Your task to perform on an android device: Search for sushi restaurants on Maps Image 0: 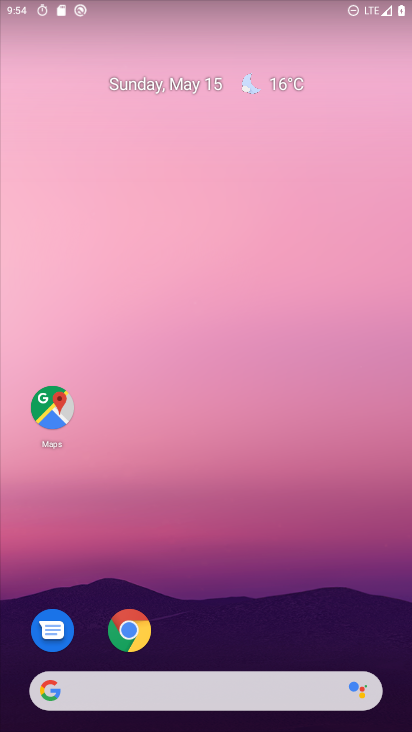
Step 0: drag from (232, 638) to (323, 33)
Your task to perform on an android device: Search for sushi restaurants on Maps Image 1: 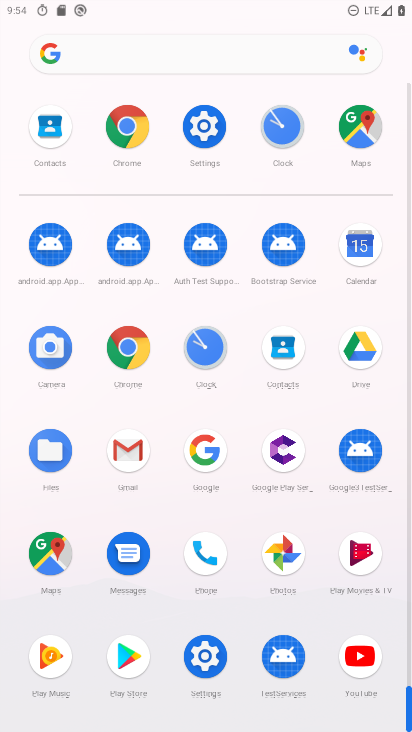
Step 1: click (35, 540)
Your task to perform on an android device: Search for sushi restaurants on Maps Image 2: 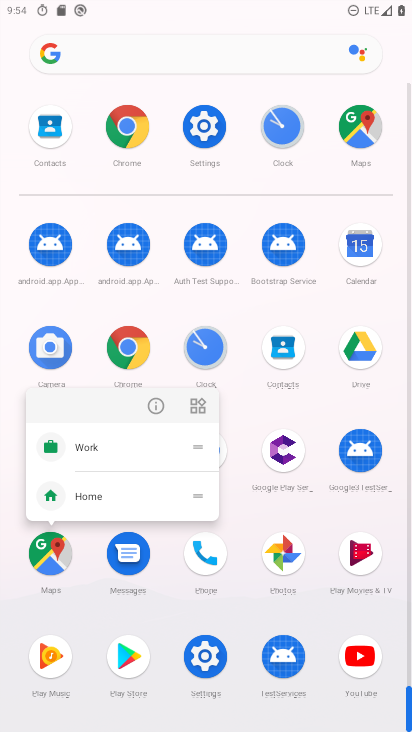
Step 2: click (157, 409)
Your task to perform on an android device: Search for sushi restaurants on Maps Image 3: 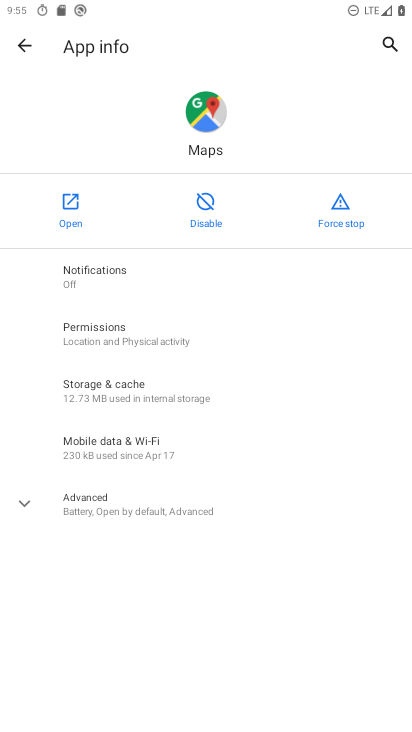
Step 3: click (84, 213)
Your task to perform on an android device: Search for sushi restaurants on Maps Image 4: 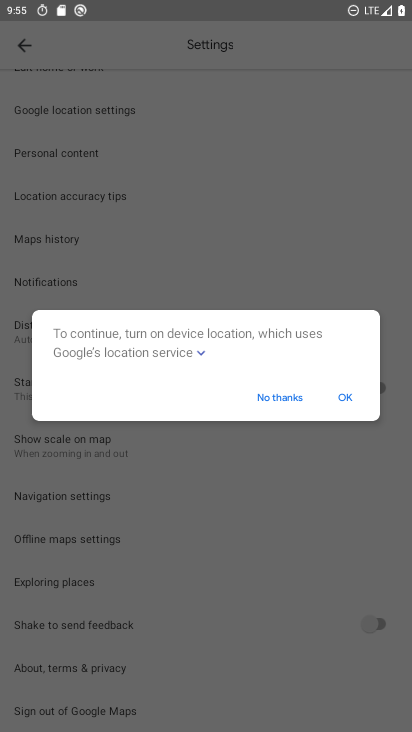
Step 4: click (342, 397)
Your task to perform on an android device: Search for sushi restaurants on Maps Image 5: 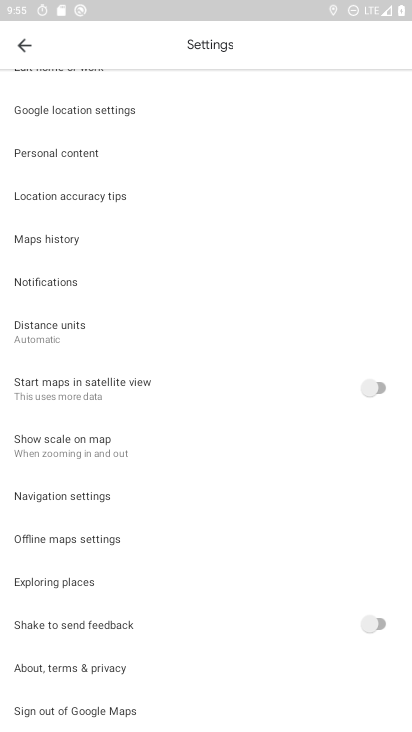
Step 5: drag from (165, 169) to (241, 694)
Your task to perform on an android device: Search for sushi restaurants on Maps Image 6: 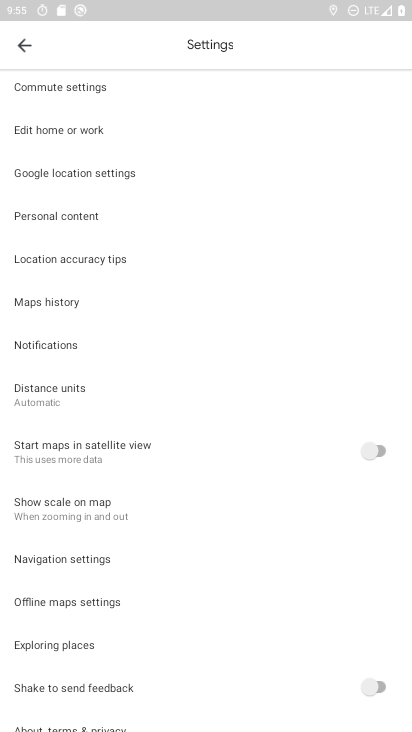
Step 6: click (31, 52)
Your task to perform on an android device: Search for sushi restaurants on Maps Image 7: 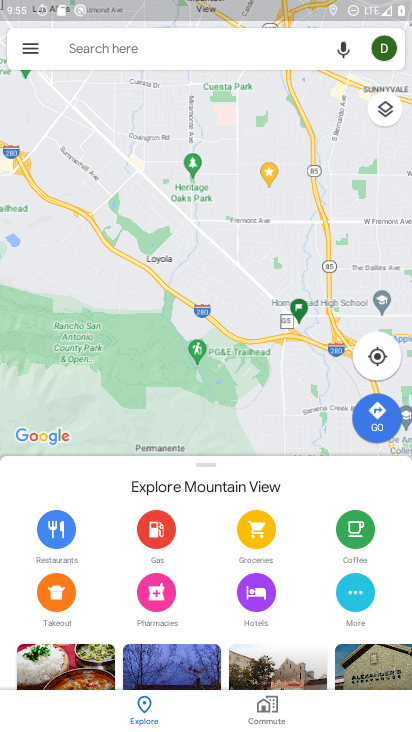
Step 7: click (161, 27)
Your task to perform on an android device: Search for sushi restaurants on Maps Image 8: 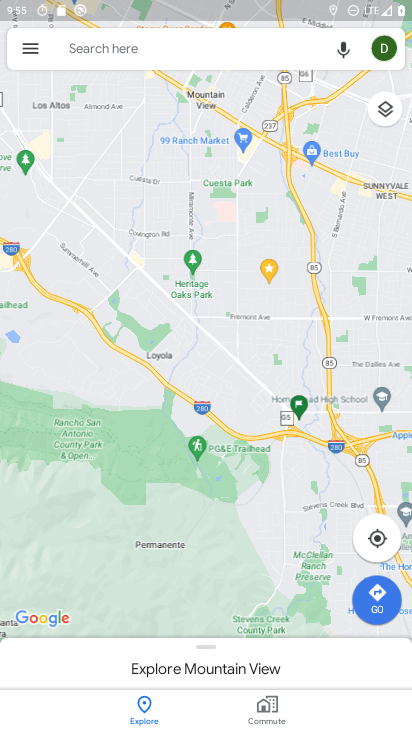
Step 8: click (145, 39)
Your task to perform on an android device: Search for sushi restaurants on Maps Image 9: 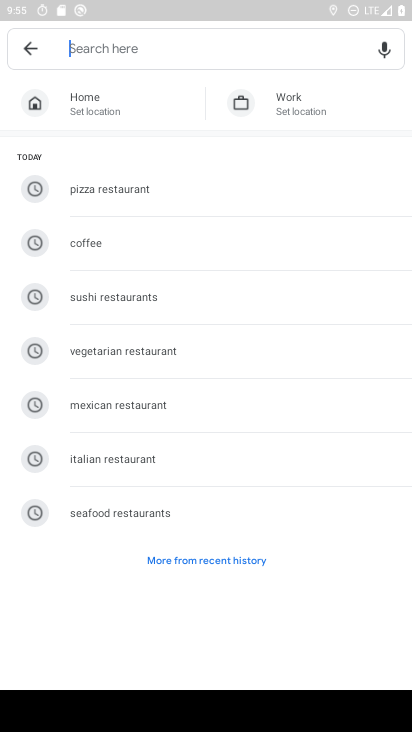
Step 9: click (133, 284)
Your task to perform on an android device: Search for sushi restaurants on Maps Image 10: 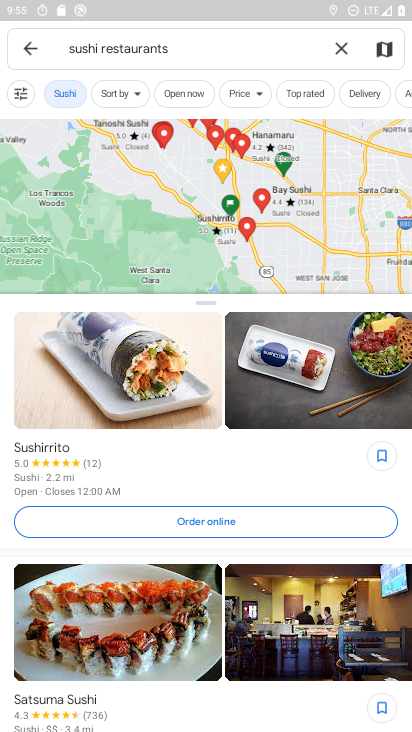
Step 10: task complete